Your task to perform on an android device: open the mobile data screen to see how much data has been used Image 0: 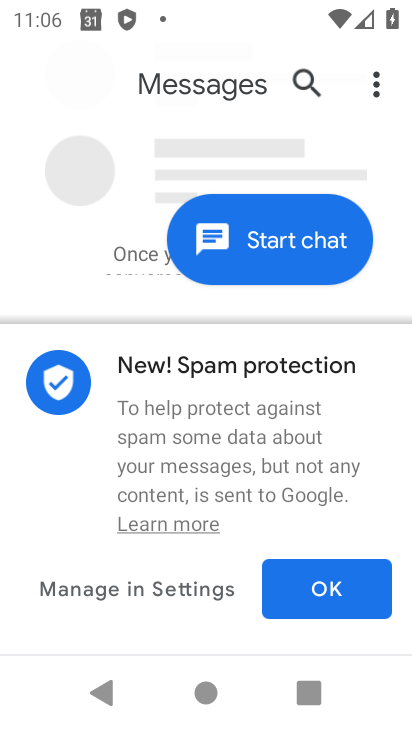
Step 0: press home button
Your task to perform on an android device: open the mobile data screen to see how much data has been used Image 1: 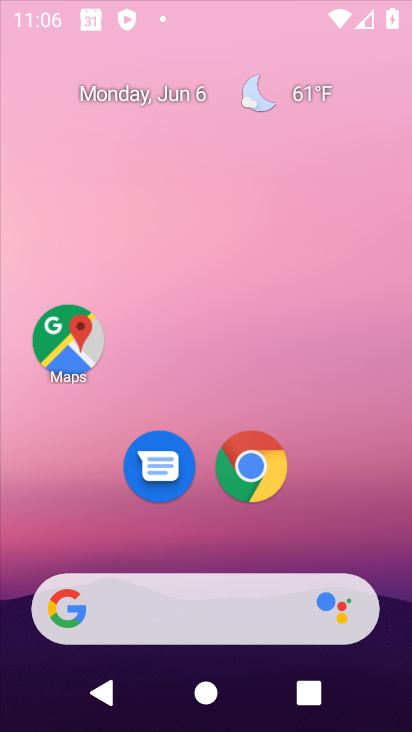
Step 1: drag from (389, 5) to (277, 687)
Your task to perform on an android device: open the mobile data screen to see how much data has been used Image 2: 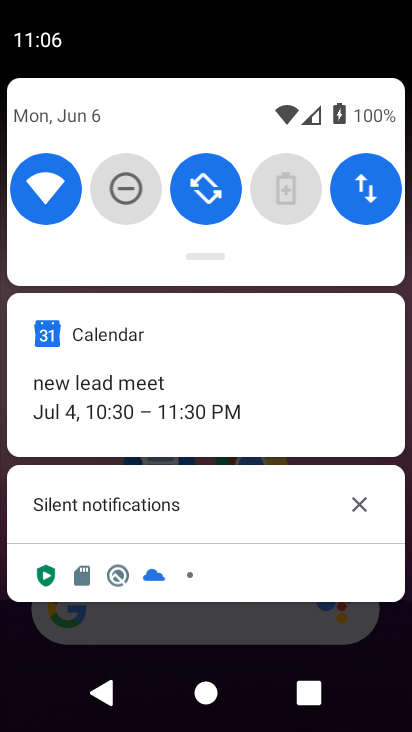
Step 2: click (343, 197)
Your task to perform on an android device: open the mobile data screen to see how much data has been used Image 3: 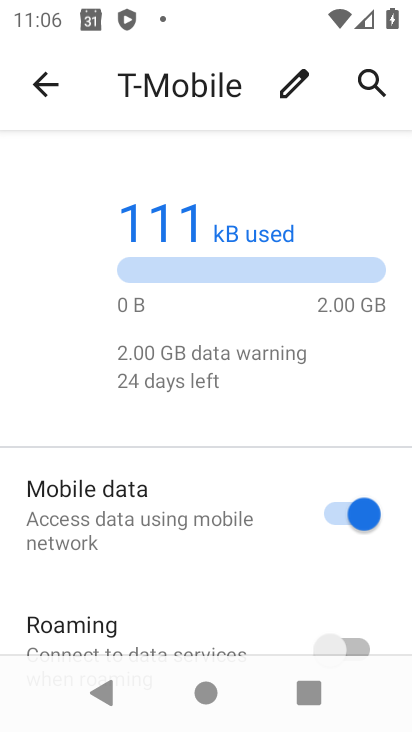
Step 3: task complete